Your task to perform on an android device: Go to ESPN.com Image 0: 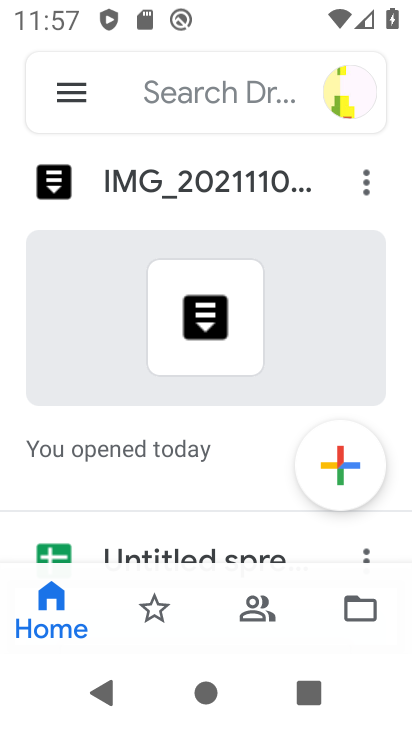
Step 0: press home button
Your task to perform on an android device: Go to ESPN.com Image 1: 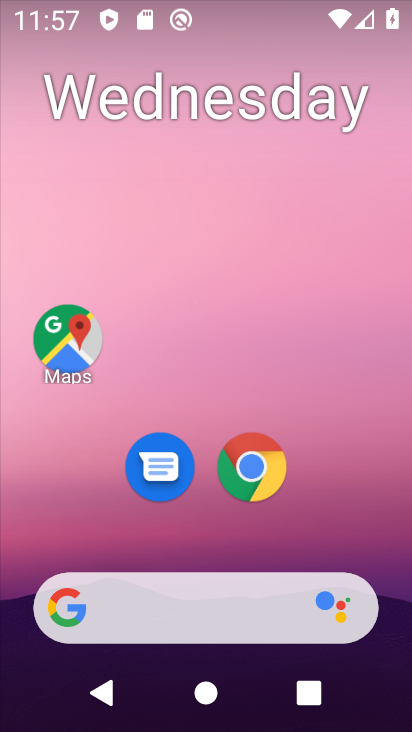
Step 1: click (261, 475)
Your task to perform on an android device: Go to ESPN.com Image 2: 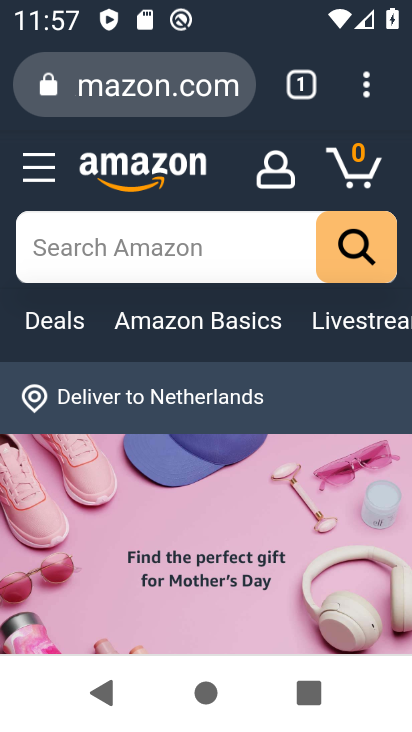
Step 2: click (321, 79)
Your task to perform on an android device: Go to ESPN.com Image 3: 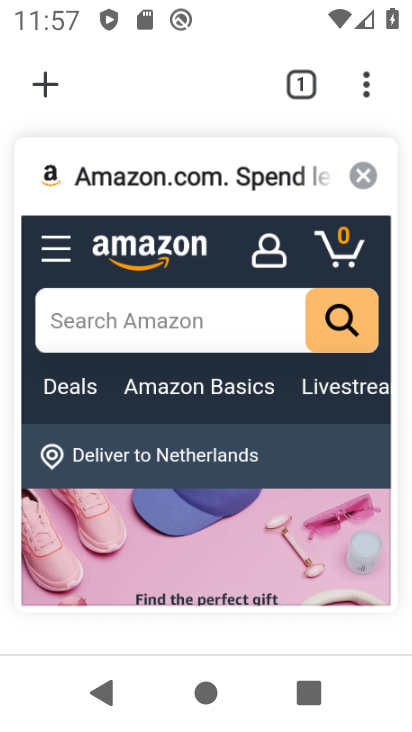
Step 3: click (190, 173)
Your task to perform on an android device: Go to ESPN.com Image 4: 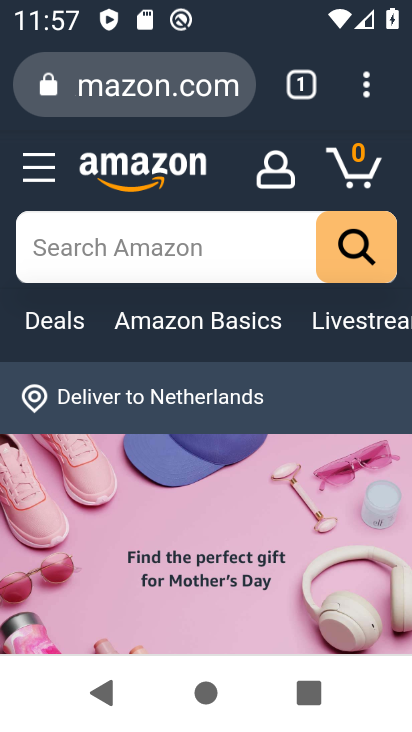
Step 4: click (179, 89)
Your task to perform on an android device: Go to ESPN.com Image 5: 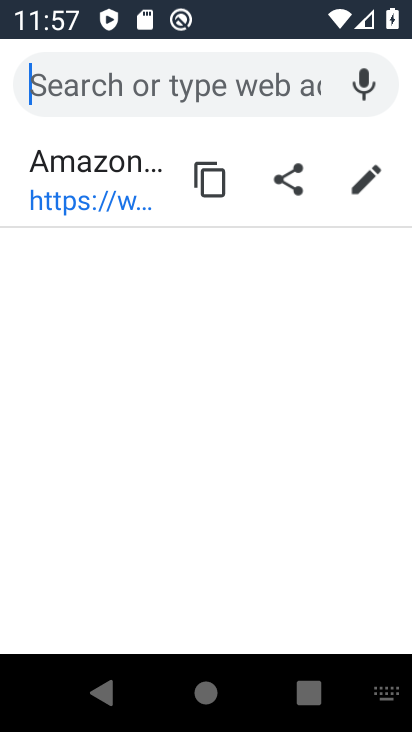
Step 5: type "espn.com"
Your task to perform on an android device: Go to ESPN.com Image 6: 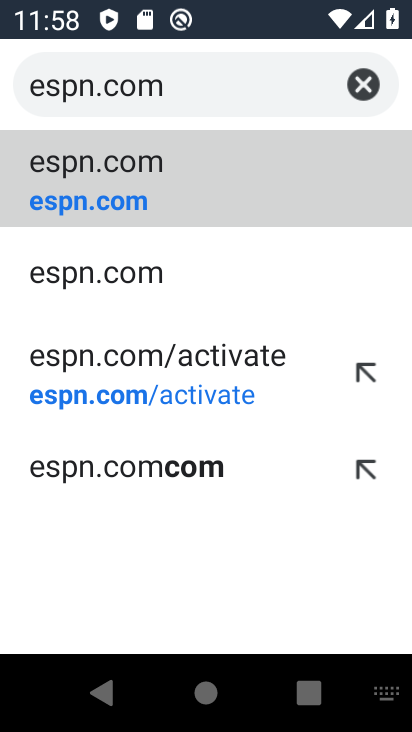
Step 6: click (219, 160)
Your task to perform on an android device: Go to ESPN.com Image 7: 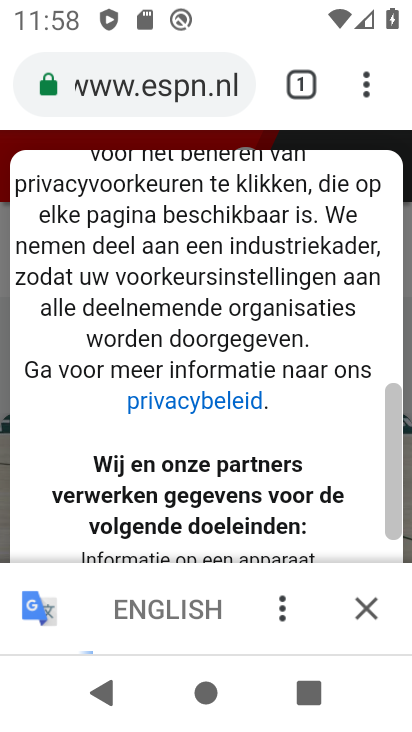
Step 7: click (371, 604)
Your task to perform on an android device: Go to ESPN.com Image 8: 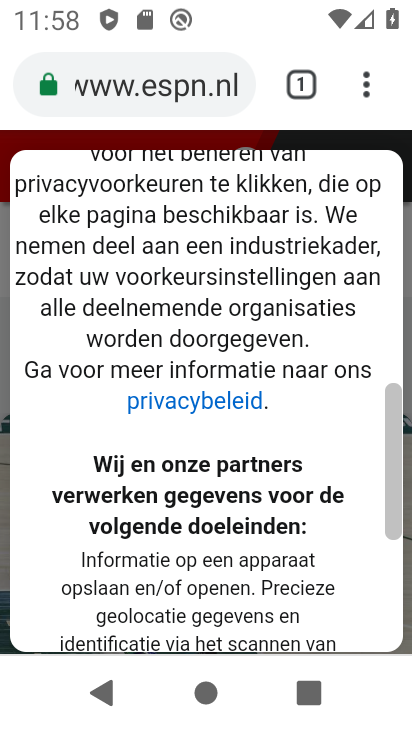
Step 8: task complete